Your task to perform on an android device: open app "Truecaller" Image 0: 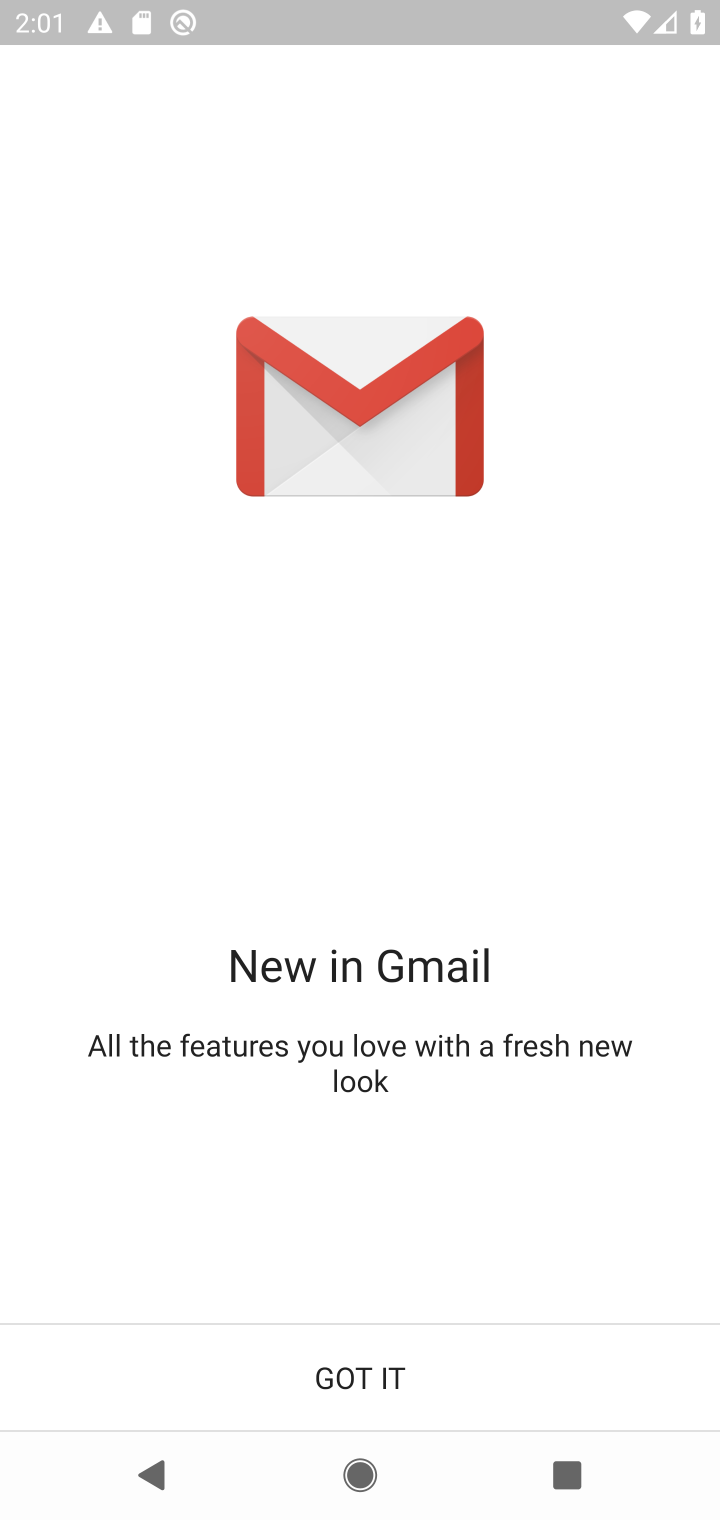
Step 0: press home button
Your task to perform on an android device: open app "Truecaller" Image 1: 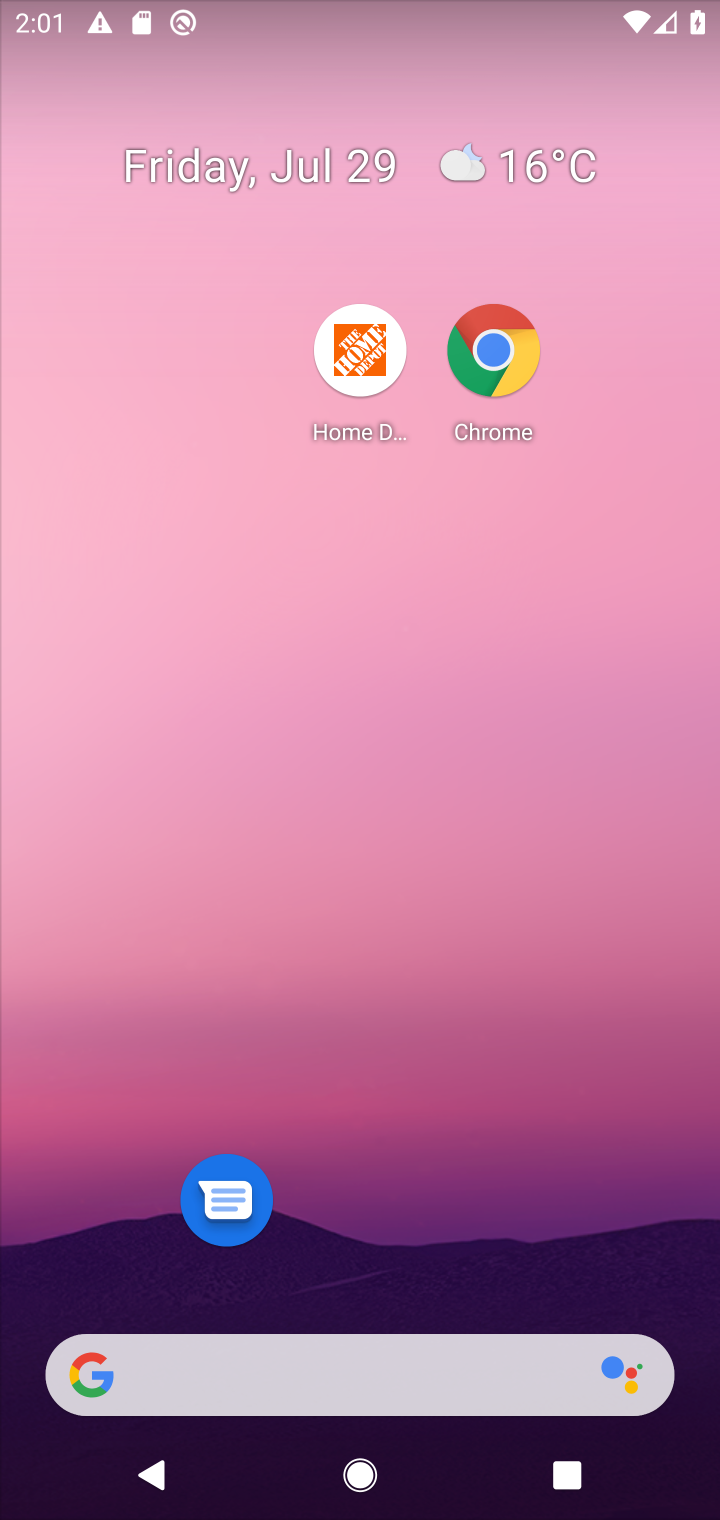
Step 1: drag from (633, 1174) to (577, 258)
Your task to perform on an android device: open app "Truecaller" Image 2: 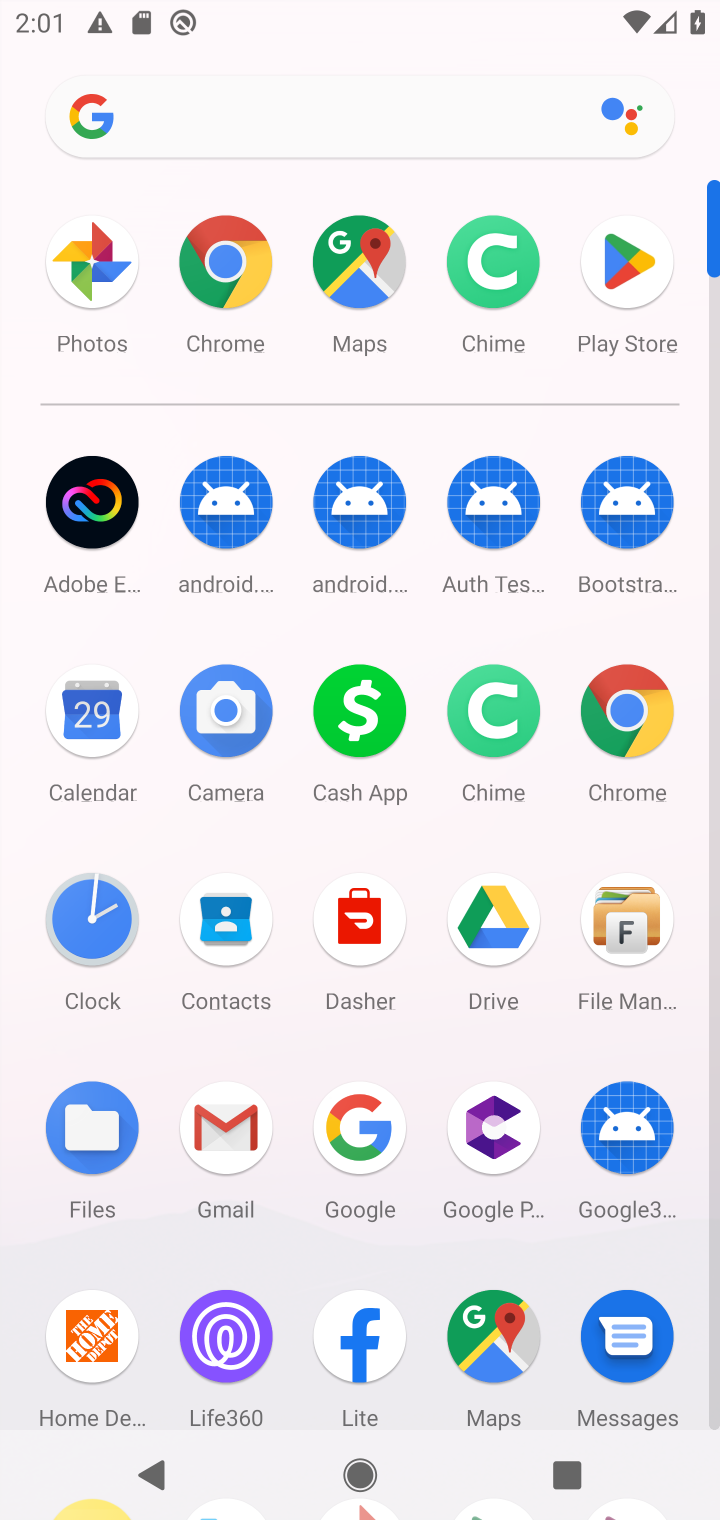
Step 2: click (614, 257)
Your task to perform on an android device: open app "Truecaller" Image 3: 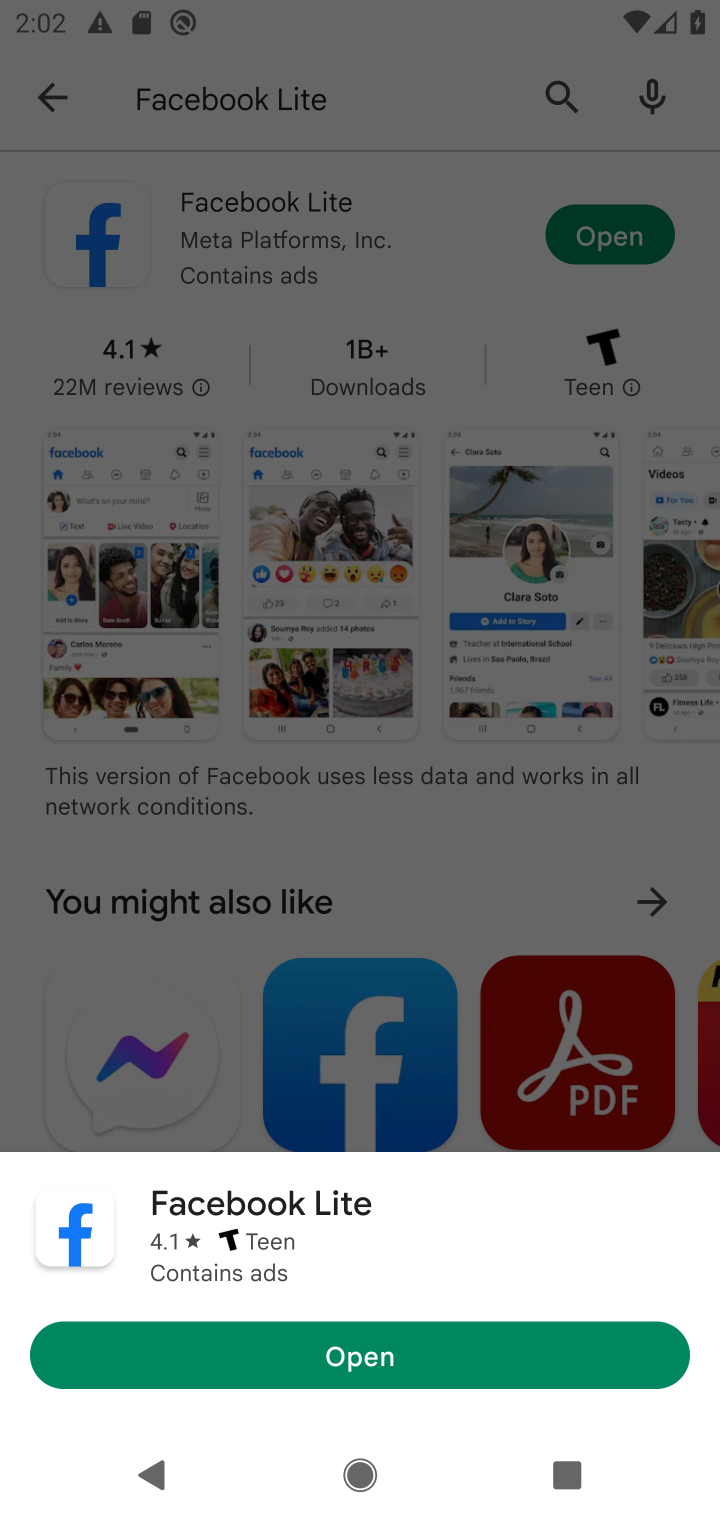
Step 3: click (385, 121)
Your task to perform on an android device: open app "Truecaller" Image 4: 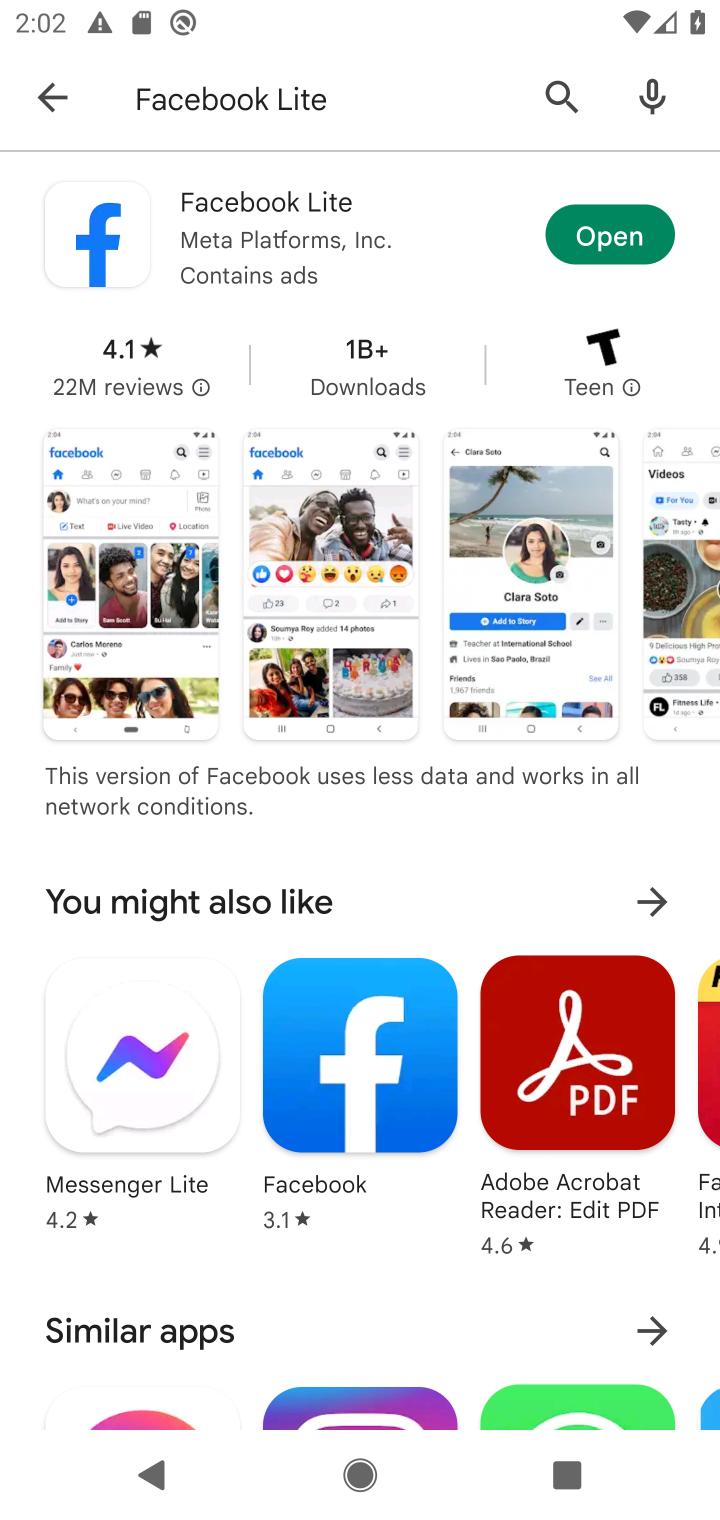
Step 4: click (385, 121)
Your task to perform on an android device: open app "Truecaller" Image 5: 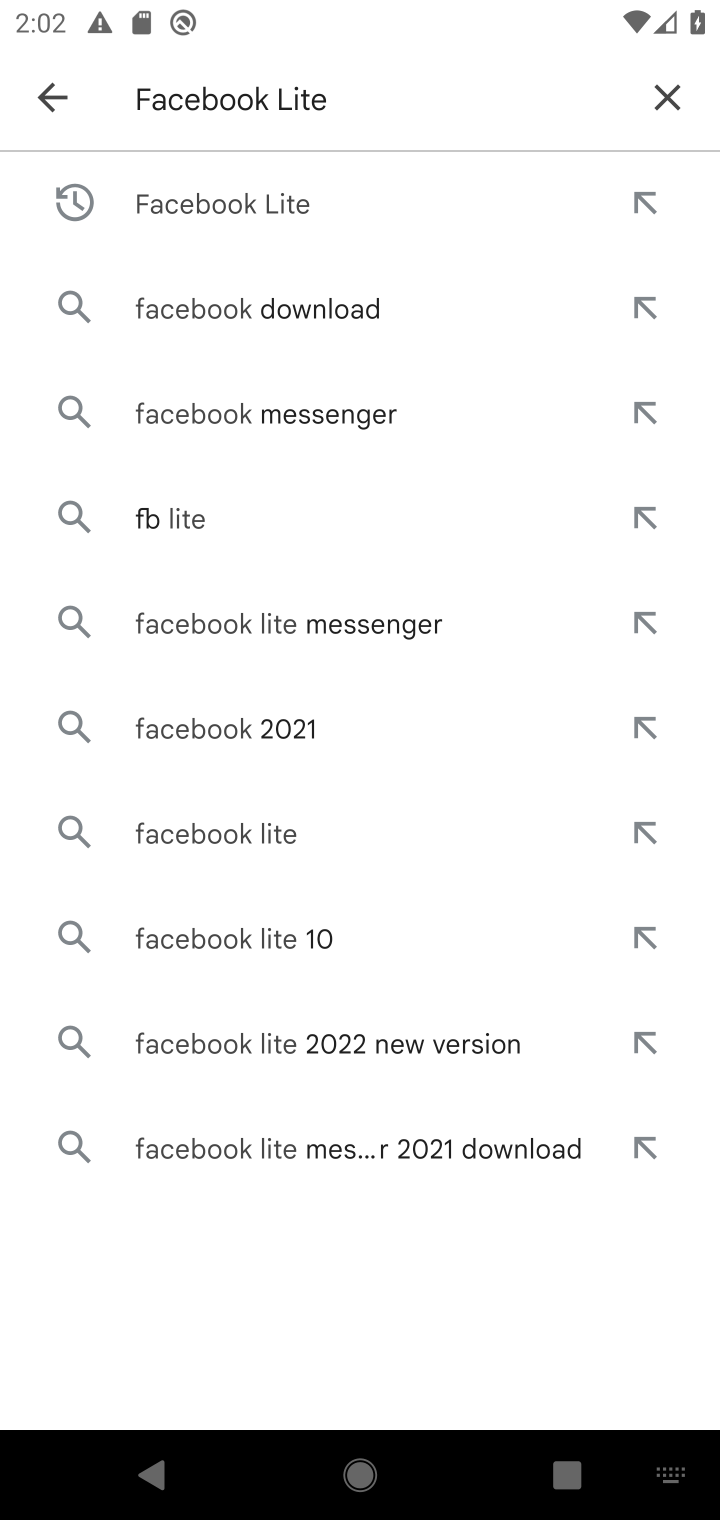
Step 5: click (673, 88)
Your task to perform on an android device: open app "Truecaller" Image 6: 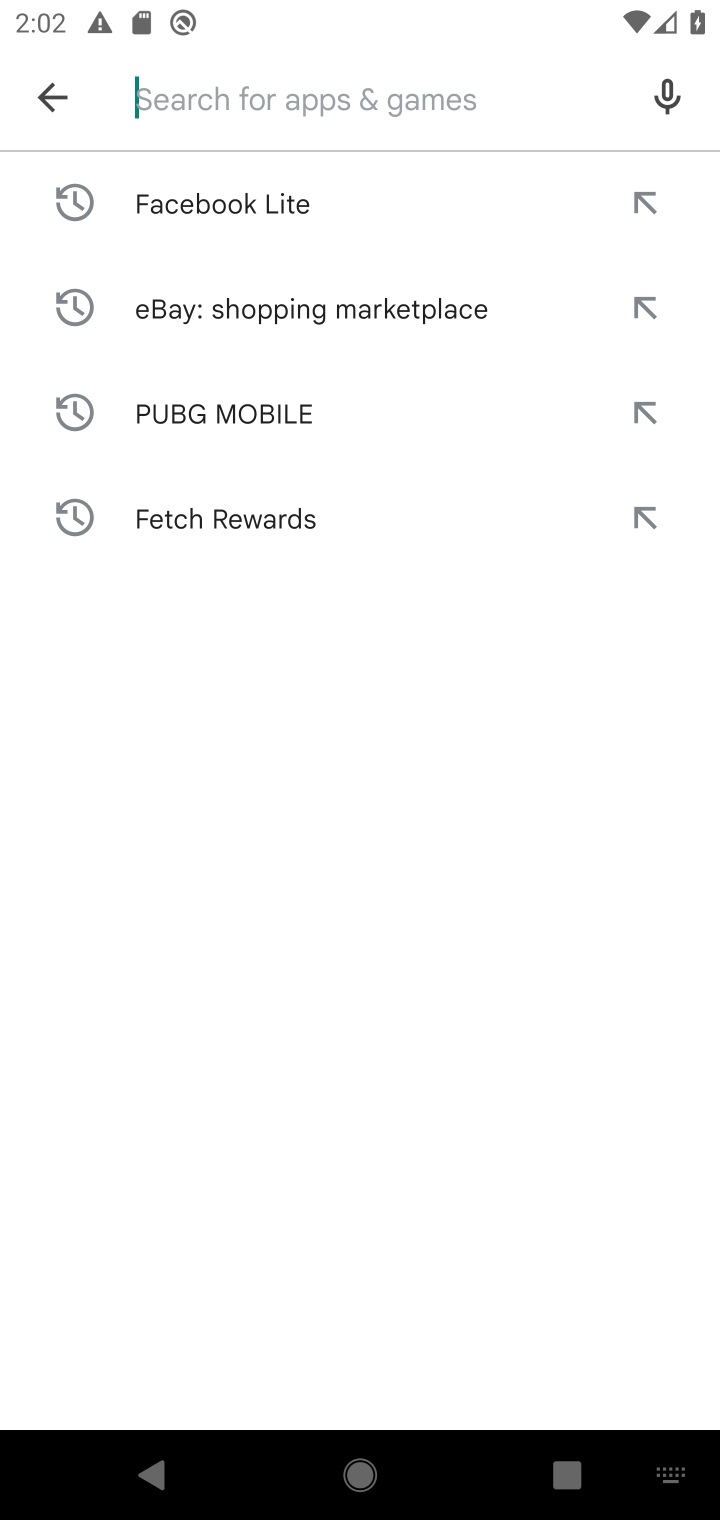
Step 6: type "Truecaller"
Your task to perform on an android device: open app "Truecaller" Image 7: 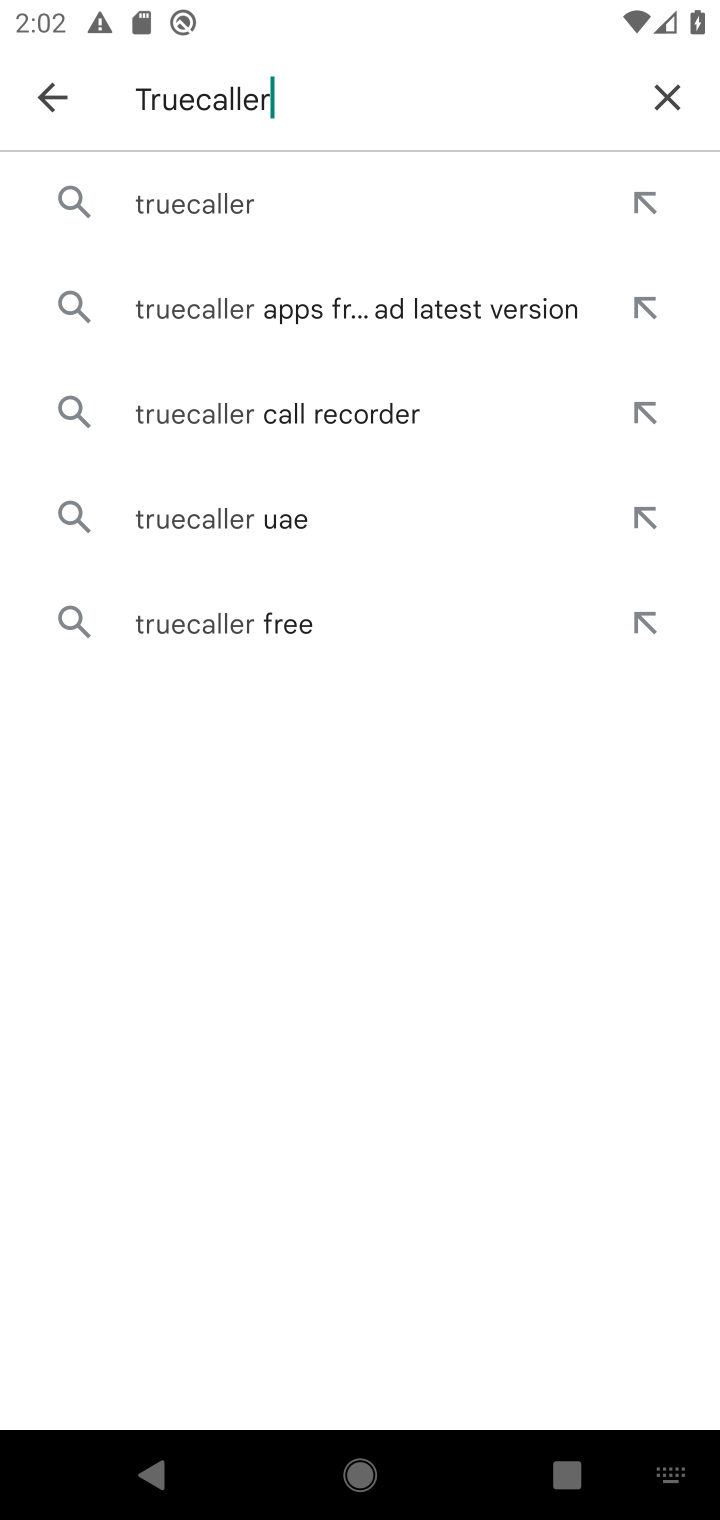
Step 7: press enter
Your task to perform on an android device: open app "Truecaller" Image 8: 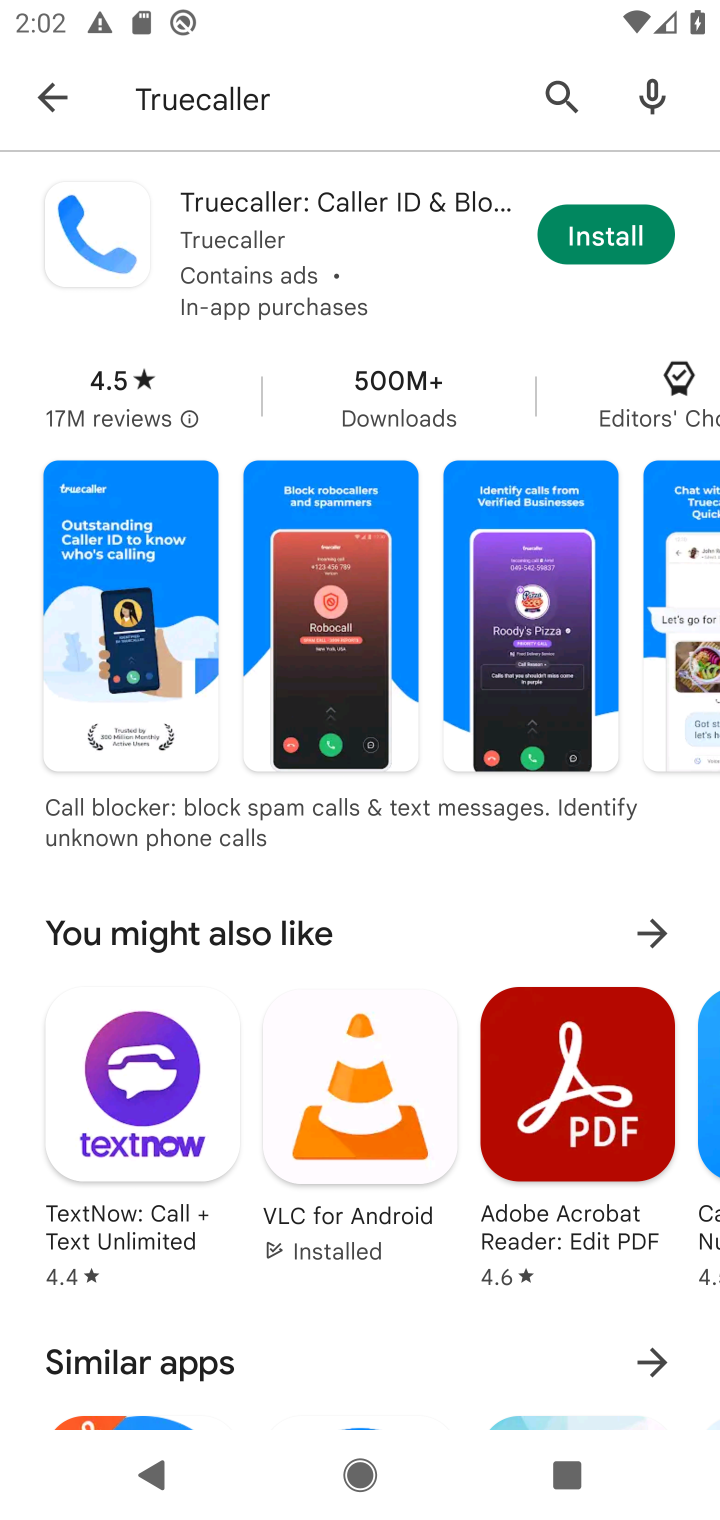
Step 8: task complete